Your task to perform on an android device: add a label to a message in the gmail app Image 0: 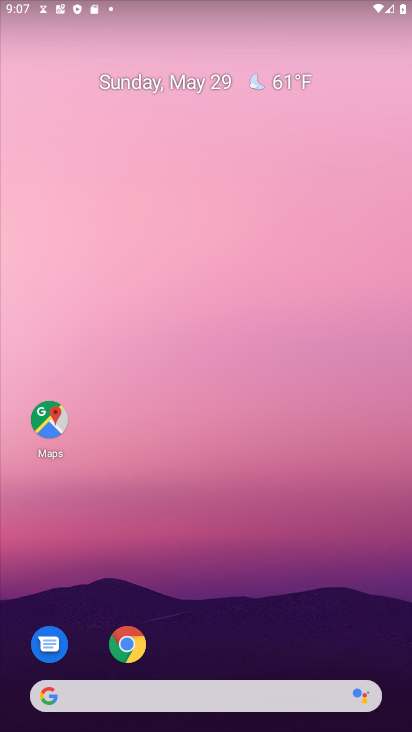
Step 0: drag from (210, 667) to (227, 94)
Your task to perform on an android device: add a label to a message in the gmail app Image 1: 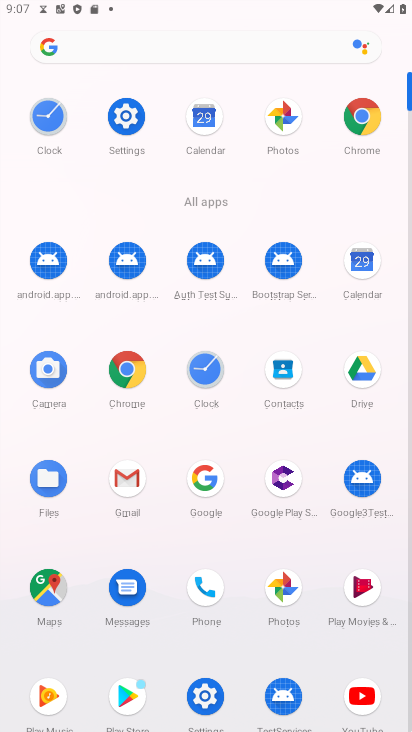
Step 1: click (107, 466)
Your task to perform on an android device: add a label to a message in the gmail app Image 2: 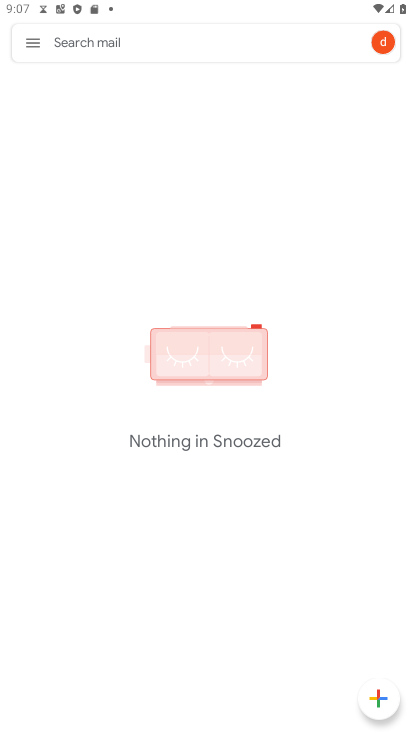
Step 2: click (30, 38)
Your task to perform on an android device: add a label to a message in the gmail app Image 3: 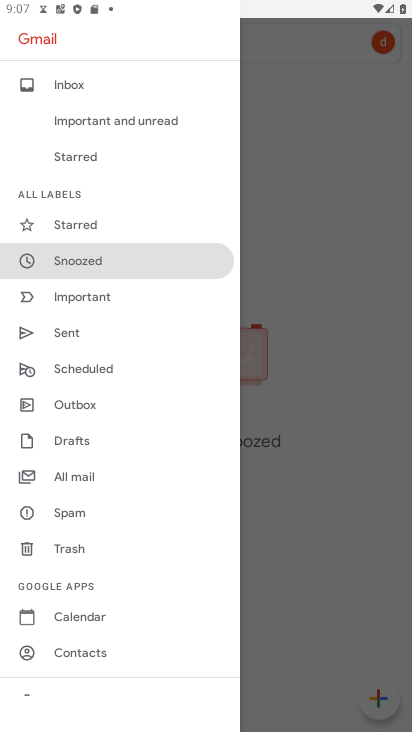
Step 3: click (78, 477)
Your task to perform on an android device: add a label to a message in the gmail app Image 4: 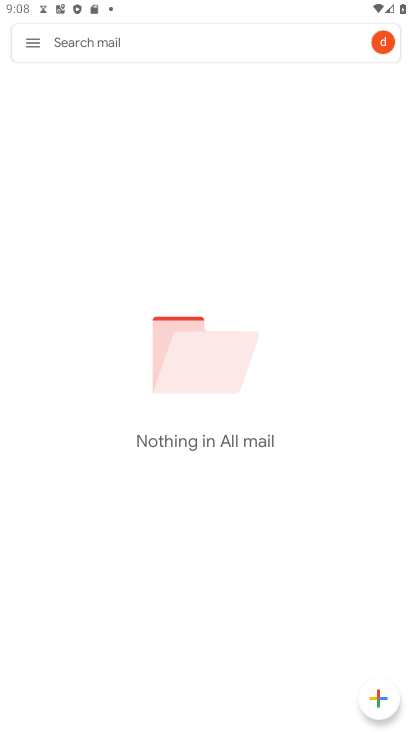
Step 4: task complete